Your task to perform on an android device: Do I have any events tomorrow? Image 0: 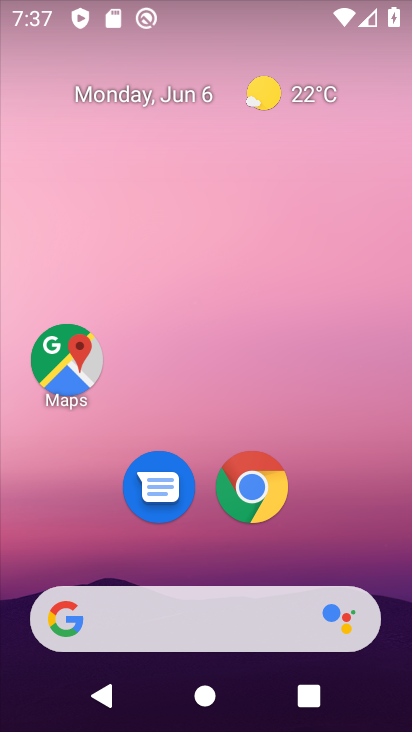
Step 0: drag from (307, 542) to (317, 178)
Your task to perform on an android device: Do I have any events tomorrow? Image 1: 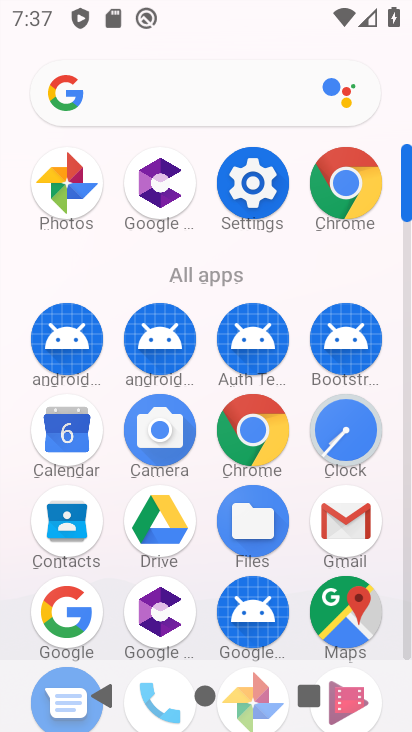
Step 1: click (53, 458)
Your task to perform on an android device: Do I have any events tomorrow? Image 2: 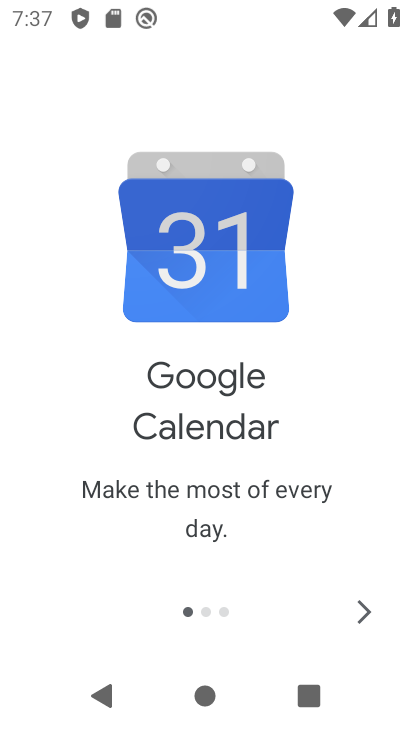
Step 2: click (368, 591)
Your task to perform on an android device: Do I have any events tomorrow? Image 3: 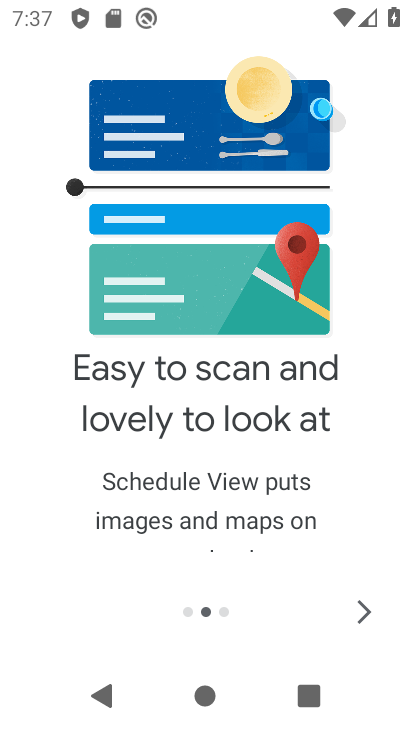
Step 3: click (362, 617)
Your task to perform on an android device: Do I have any events tomorrow? Image 4: 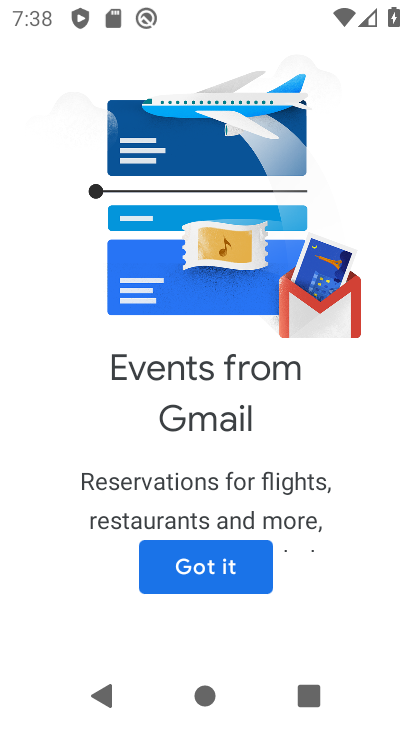
Step 4: click (236, 562)
Your task to perform on an android device: Do I have any events tomorrow? Image 5: 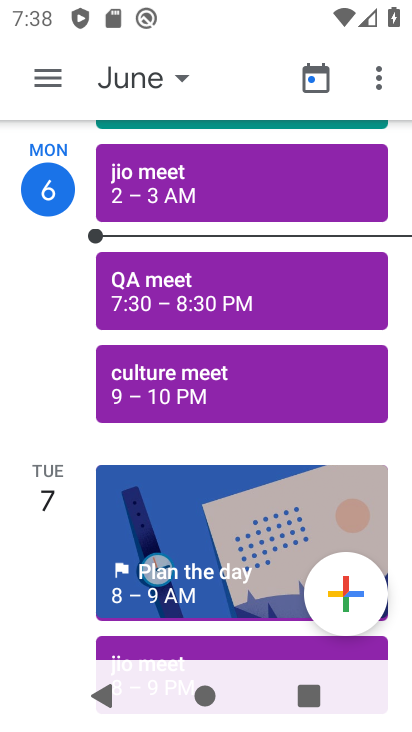
Step 5: click (136, 85)
Your task to perform on an android device: Do I have any events tomorrow? Image 6: 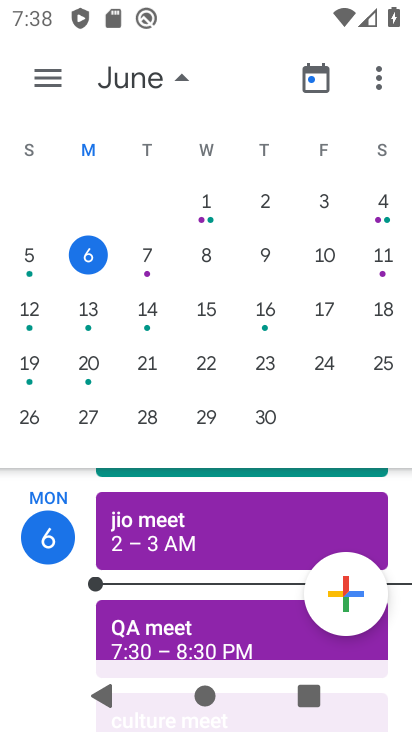
Step 6: task complete